Your task to perform on an android device: open the mobile data screen to see how much data has been used Image 0: 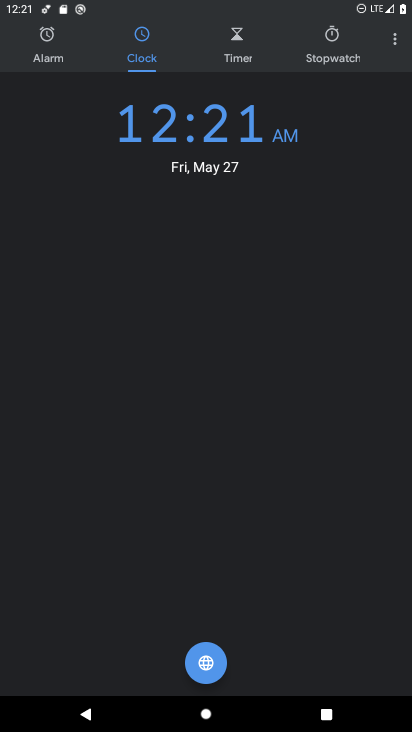
Step 0: press home button
Your task to perform on an android device: open the mobile data screen to see how much data has been used Image 1: 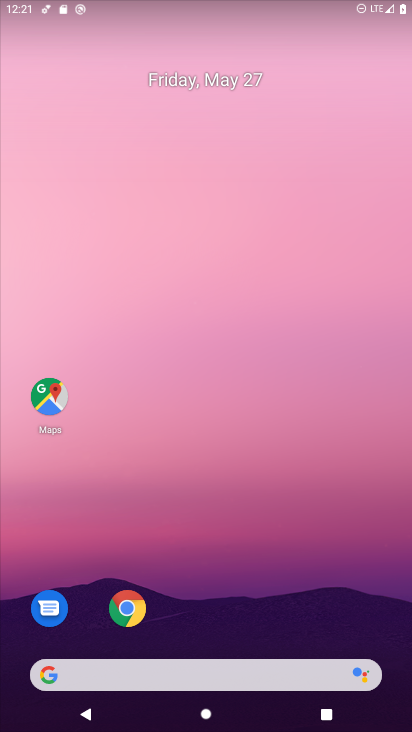
Step 1: drag from (126, 680) to (294, 217)
Your task to perform on an android device: open the mobile data screen to see how much data has been used Image 2: 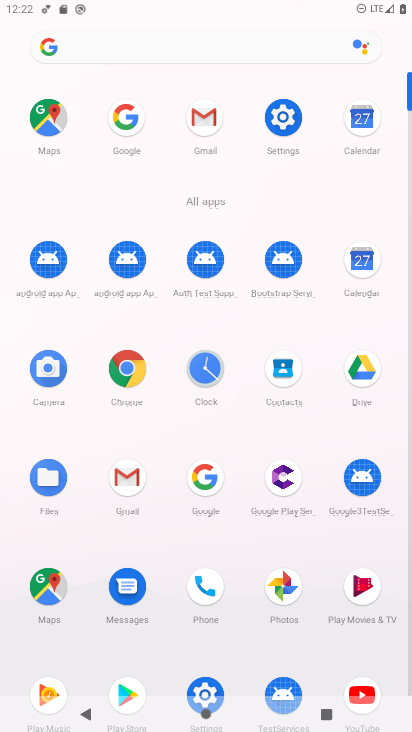
Step 2: click (285, 122)
Your task to perform on an android device: open the mobile data screen to see how much data has been used Image 3: 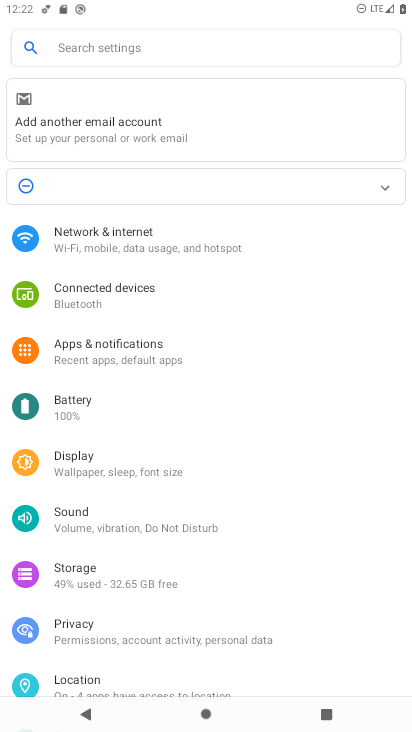
Step 3: click (161, 246)
Your task to perform on an android device: open the mobile data screen to see how much data has been used Image 4: 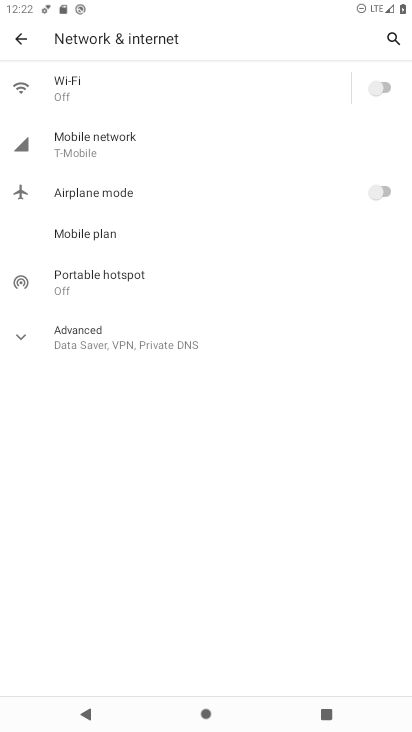
Step 4: click (97, 144)
Your task to perform on an android device: open the mobile data screen to see how much data has been used Image 5: 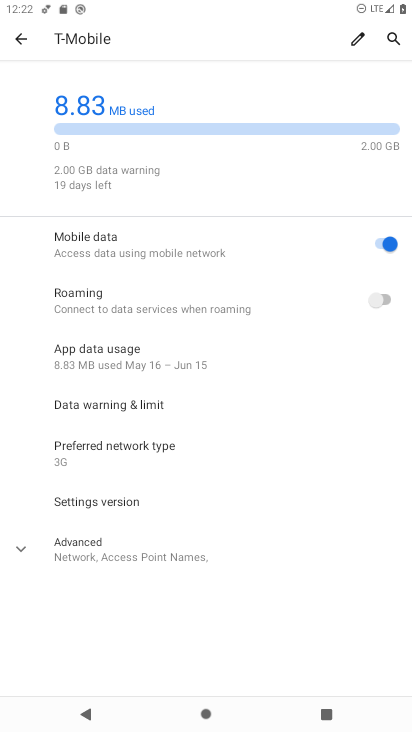
Step 5: task complete